Your task to perform on an android device: Open calendar and show me the third week of next month Image 0: 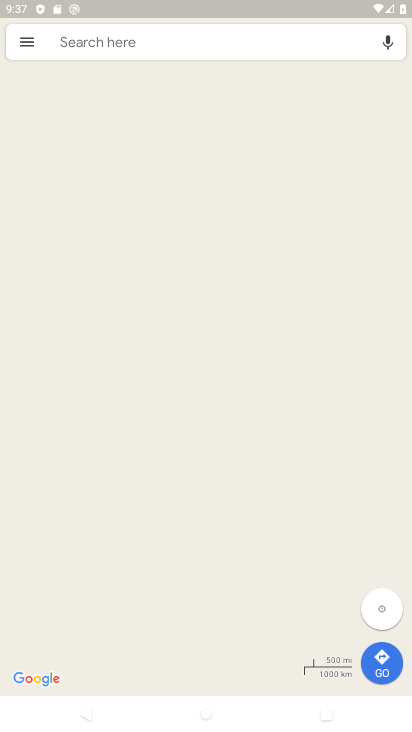
Step 0: press home button
Your task to perform on an android device: Open calendar and show me the third week of next month Image 1: 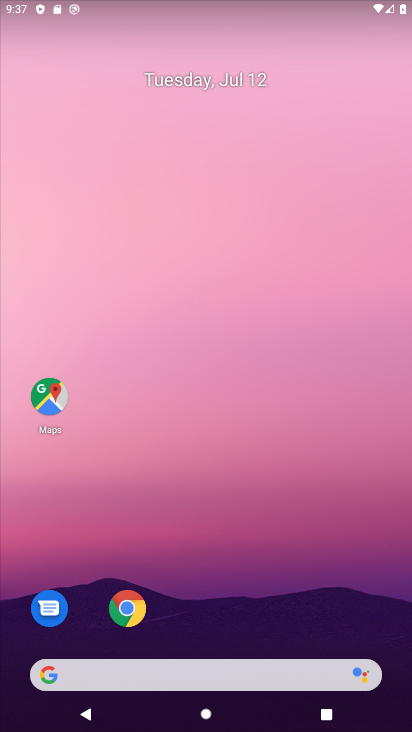
Step 1: drag from (282, 622) to (282, 98)
Your task to perform on an android device: Open calendar and show me the third week of next month Image 2: 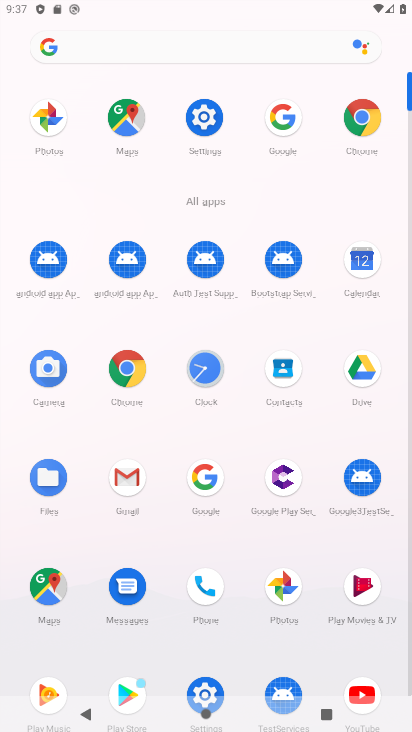
Step 2: click (367, 262)
Your task to perform on an android device: Open calendar and show me the third week of next month Image 3: 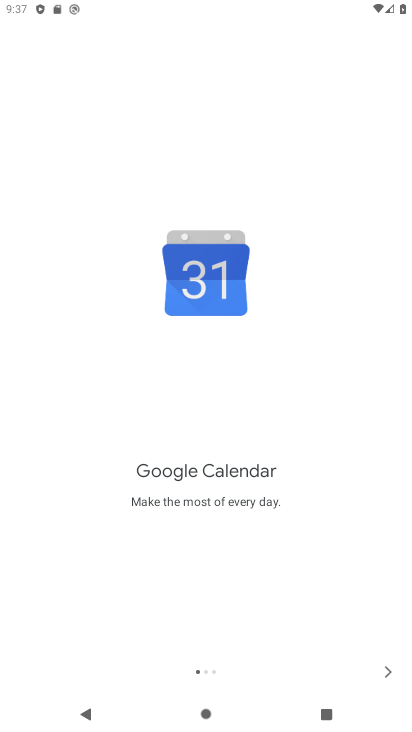
Step 3: click (391, 673)
Your task to perform on an android device: Open calendar and show me the third week of next month Image 4: 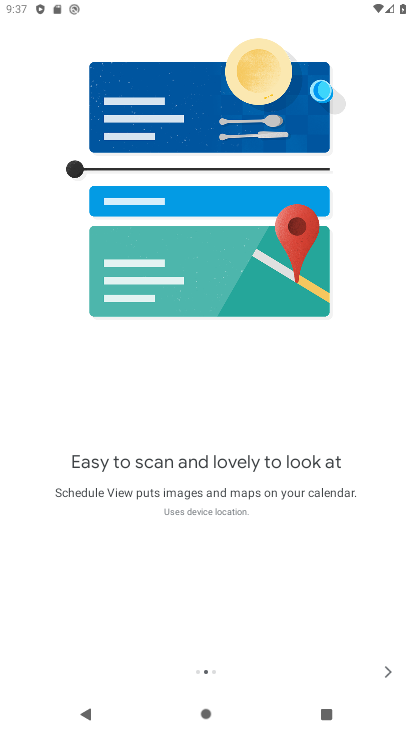
Step 4: click (391, 673)
Your task to perform on an android device: Open calendar and show me the third week of next month Image 5: 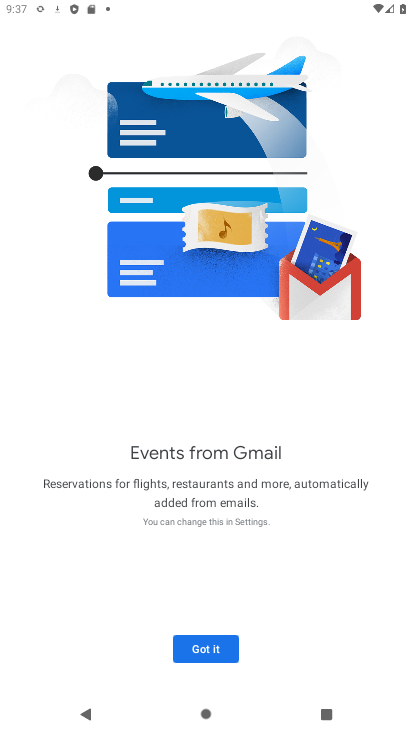
Step 5: click (221, 645)
Your task to perform on an android device: Open calendar and show me the third week of next month Image 6: 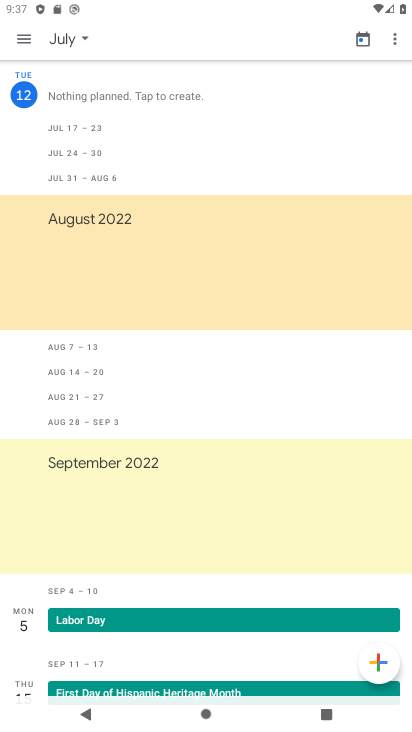
Step 6: click (61, 32)
Your task to perform on an android device: Open calendar and show me the third week of next month Image 7: 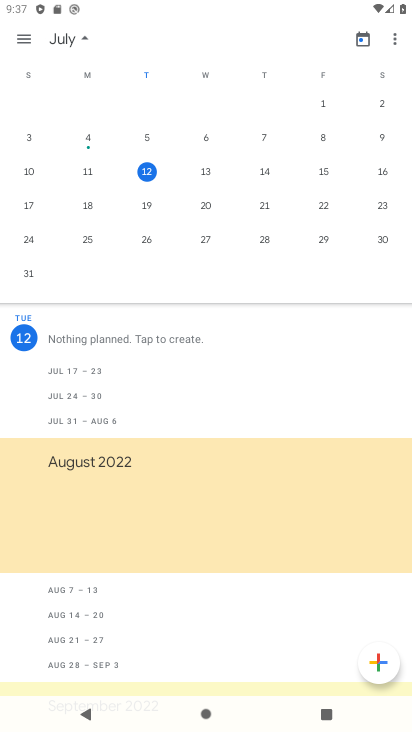
Step 7: drag from (364, 212) to (34, 222)
Your task to perform on an android device: Open calendar and show me the third week of next month Image 8: 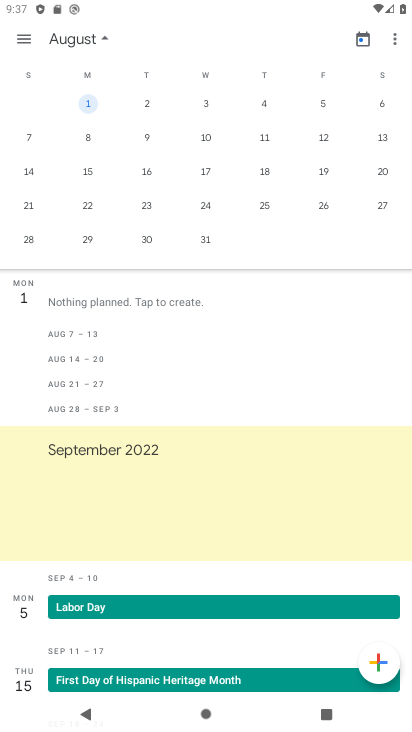
Step 8: click (37, 183)
Your task to perform on an android device: Open calendar and show me the third week of next month Image 9: 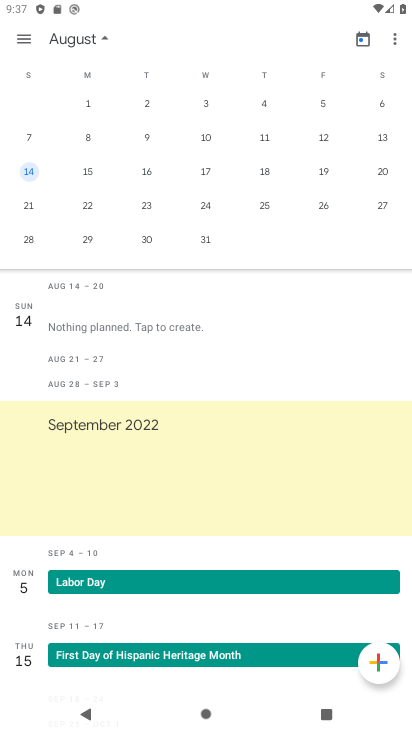
Step 9: task complete